Your task to perform on an android device: Go to privacy settings Image 0: 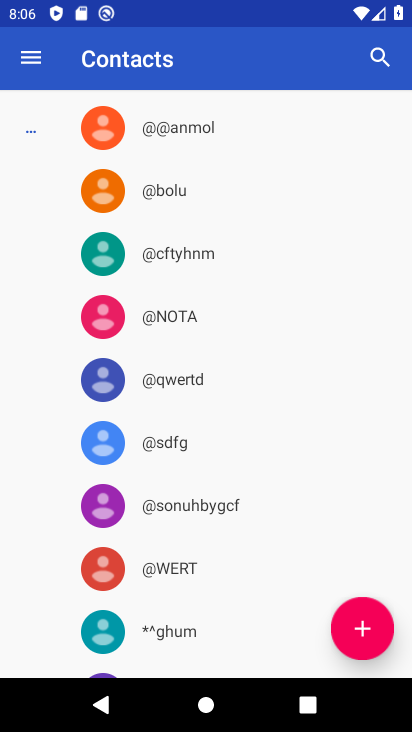
Step 0: press home button
Your task to perform on an android device: Go to privacy settings Image 1: 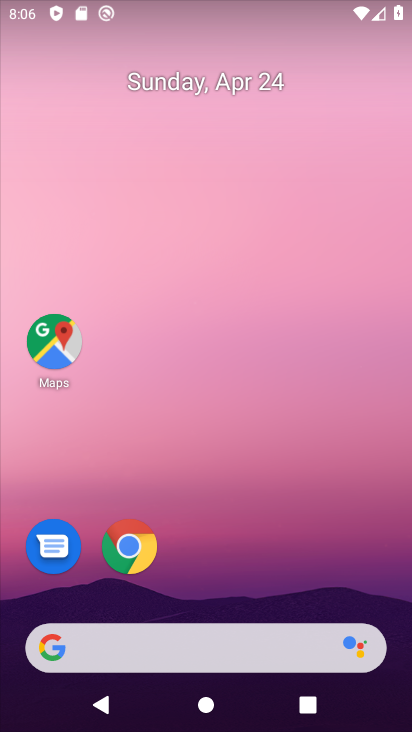
Step 1: drag from (252, 475) to (276, 112)
Your task to perform on an android device: Go to privacy settings Image 2: 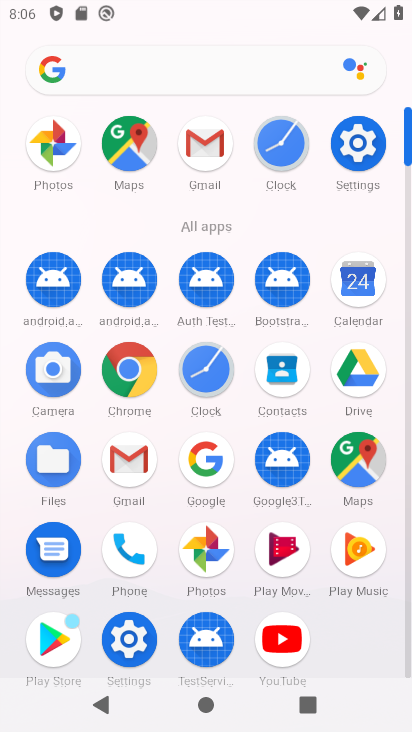
Step 2: click (351, 148)
Your task to perform on an android device: Go to privacy settings Image 3: 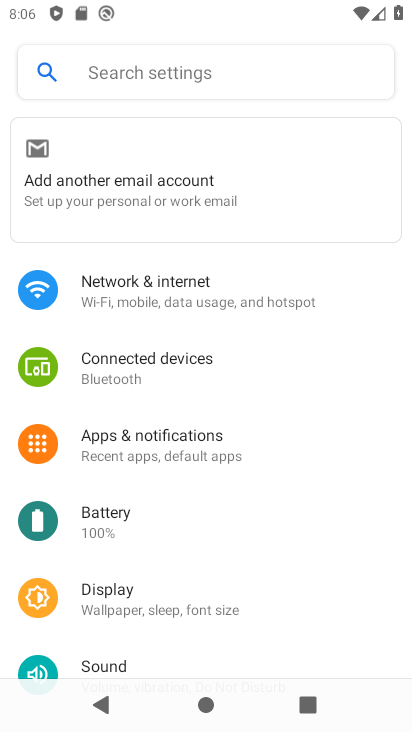
Step 3: drag from (197, 555) to (259, 94)
Your task to perform on an android device: Go to privacy settings Image 4: 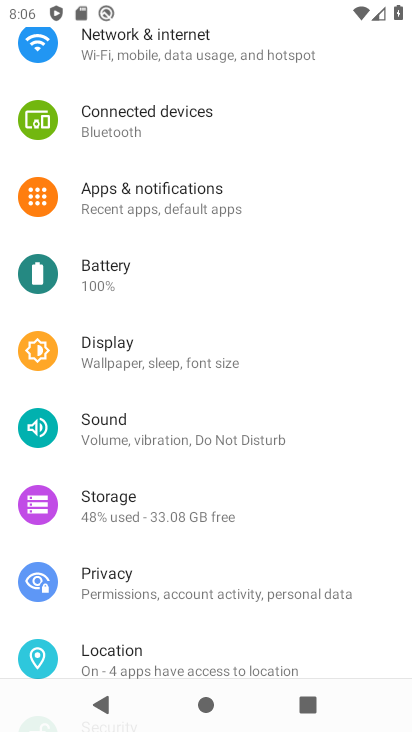
Step 4: drag from (150, 421) to (193, 205)
Your task to perform on an android device: Go to privacy settings Image 5: 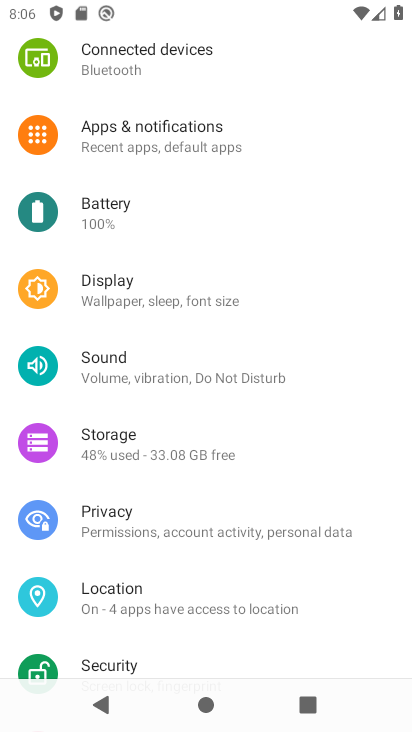
Step 5: click (119, 533)
Your task to perform on an android device: Go to privacy settings Image 6: 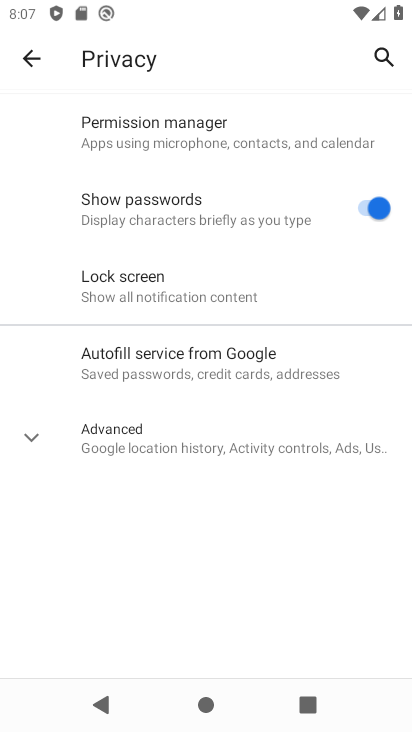
Step 6: task complete